Your task to perform on an android device: move a message to another label in the gmail app Image 0: 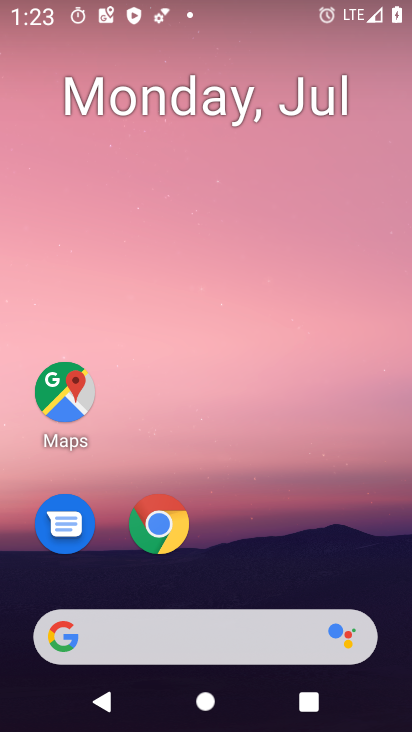
Step 0: press home button
Your task to perform on an android device: move a message to another label in the gmail app Image 1: 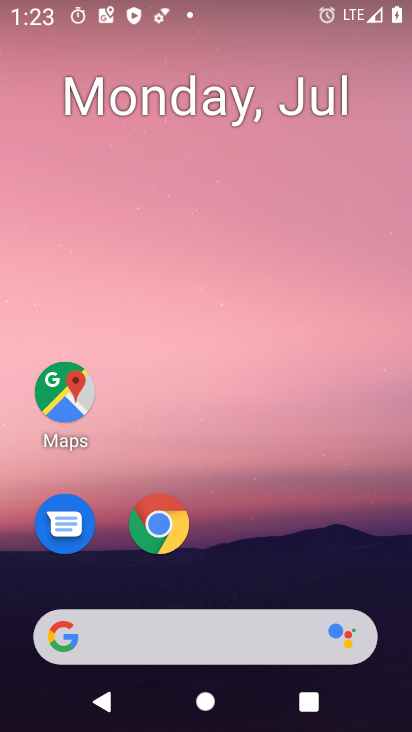
Step 1: drag from (308, 563) to (349, 230)
Your task to perform on an android device: move a message to another label in the gmail app Image 2: 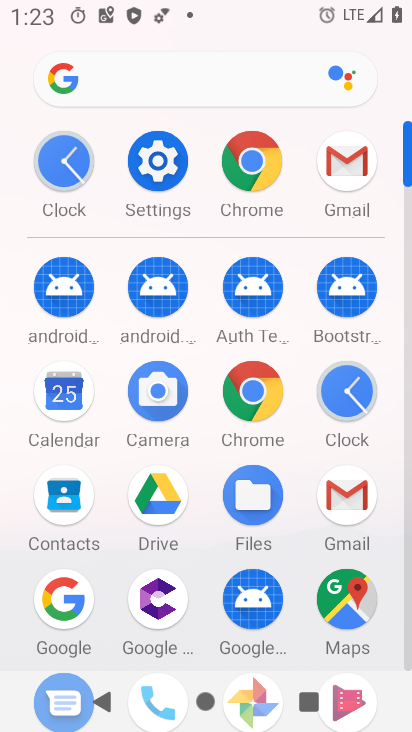
Step 2: click (333, 165)
Your task to perform on an android device: move a message to another label in the gmail app Image 3: 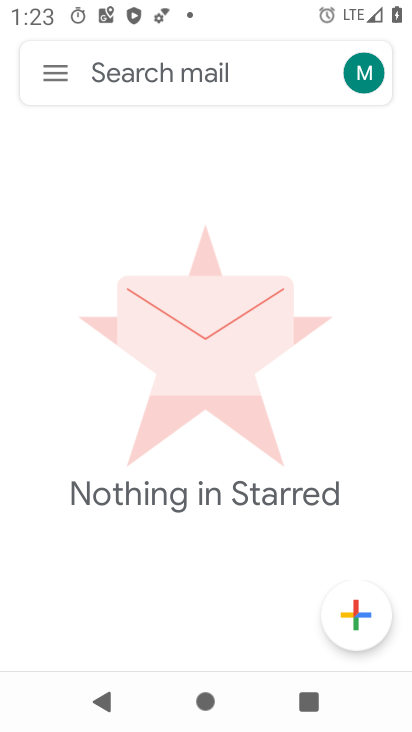
Step 3: click (54, 75)
Your task to perform on an android device: move a message to another label in the gmail app Image 4: 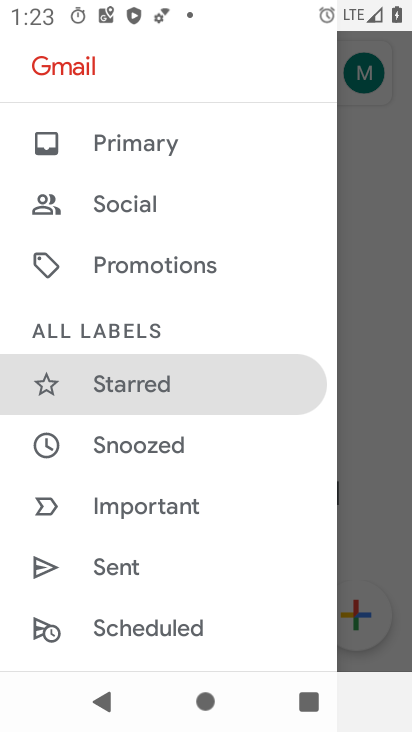
Step 4: drag from (179, 567) to (169, 78)
Your task to perform on an android device: move a message to another label in the gmail app Image 5: 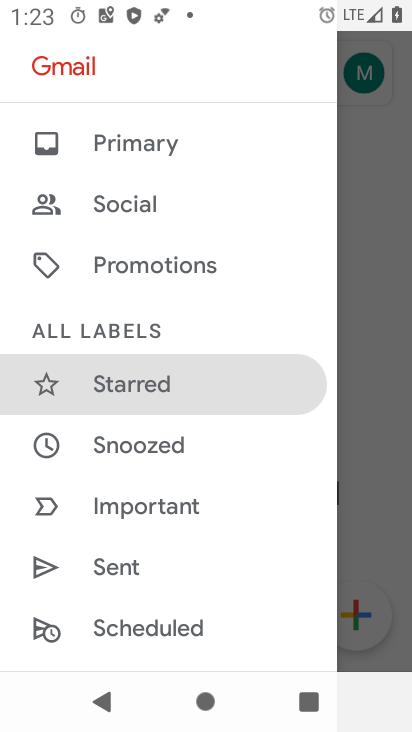
Step 5: drag from (248, 599) to (279, 128)
Your task to perform on an android device: move a message to another label in the gmail app Image 6: 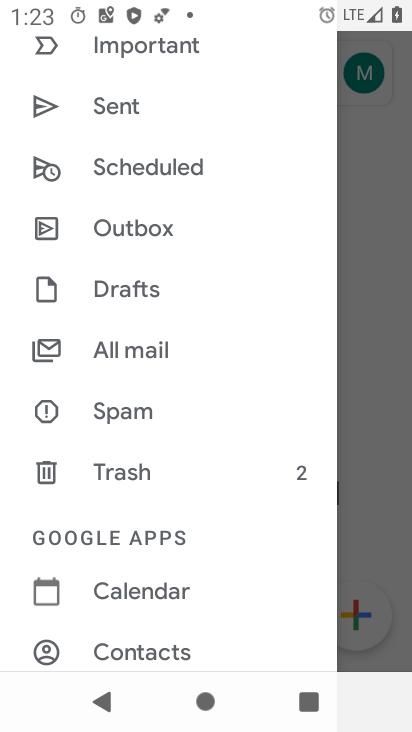
Step 6: click (116, 351)
Your task to perform on an android device: move a message to another label in the gmail app Image 7: 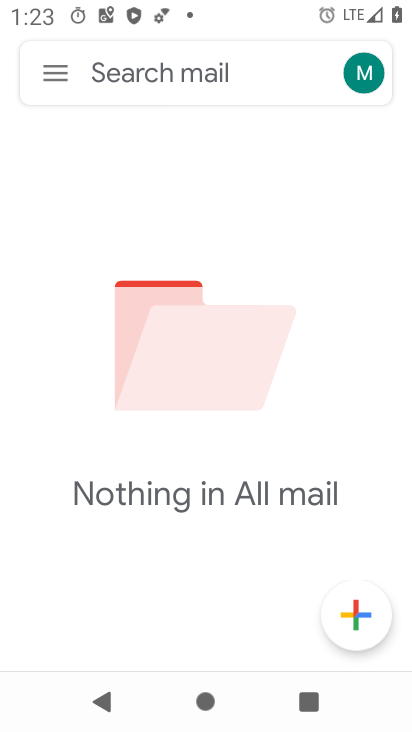
Step 7: task complete